Your task to perform on an android device: turn on javascript in the chrome app Image 0: 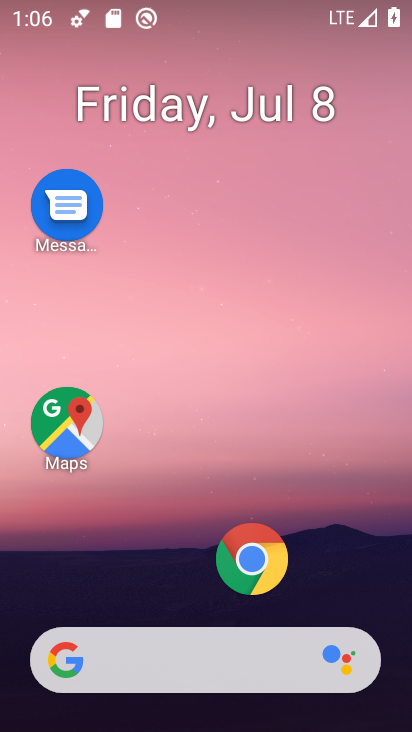
Step 0: drag from (219, 615) to (185, 21)
Your task to perform on an android device: turn on javascript in the chrome app Image 1: 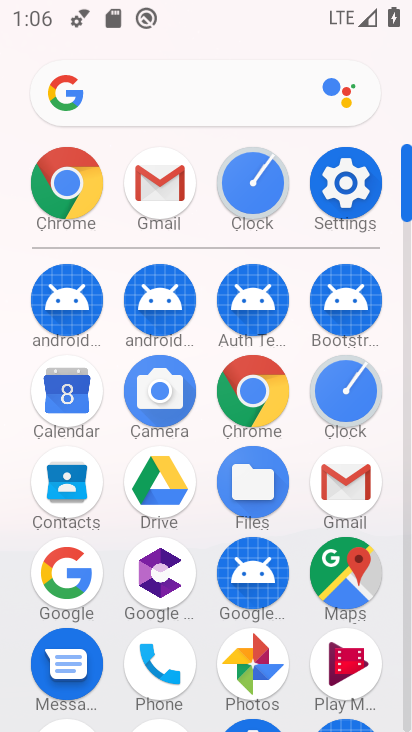
Step 1: click (87, 184)
Your task to perform on an android device: turn on javascript in the chrome app Image 2: 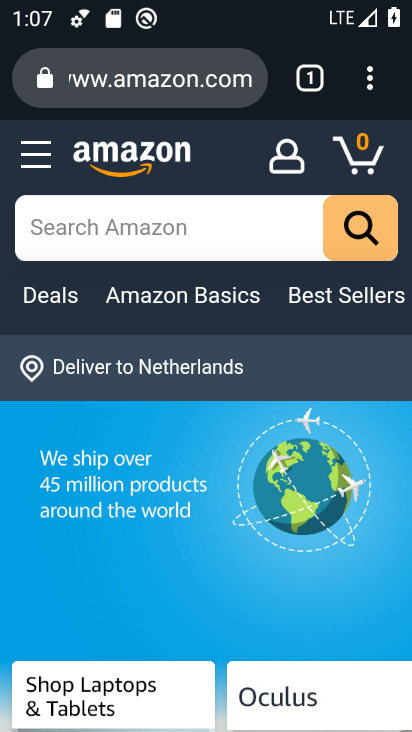
Step 2: drag from (359, 79) to (110, 625)
Your task to perform on an android device: turn on javascript in the chrome app Image 3: 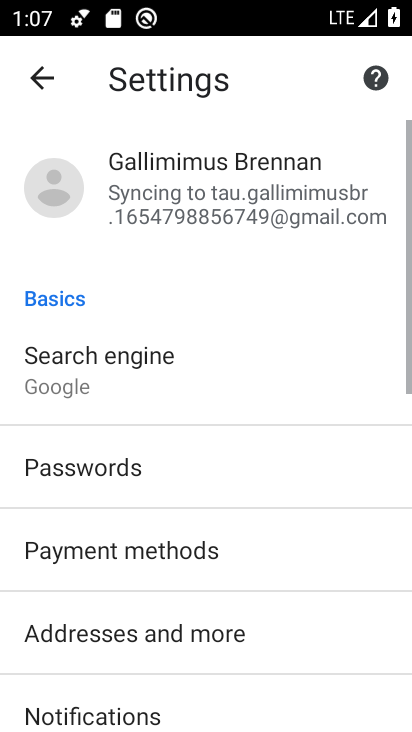
Step 3: drag from (110, 625) to (110, 162)
Your task to perform on an android device: turn on javascript in the chrome app Image 4: 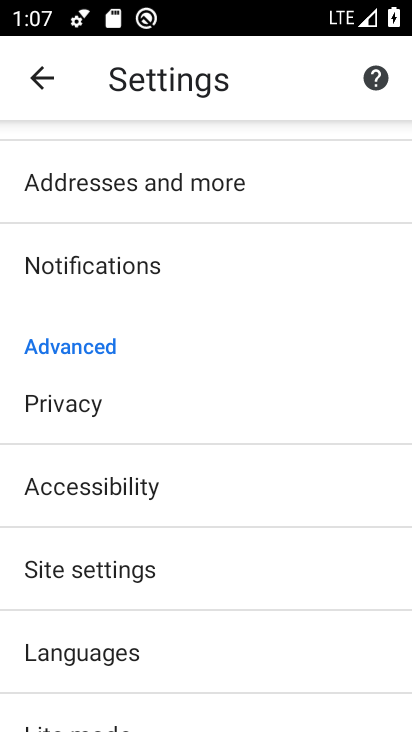
Step 4: click (137, 557)
Your task to perform on an android device: turn on javascript in the chrome app Image 5: 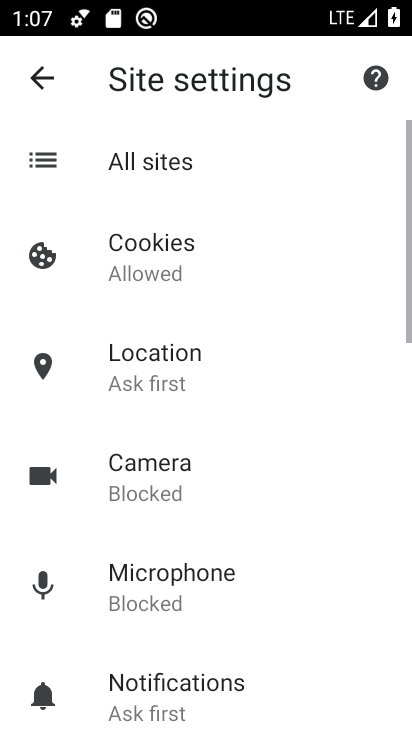
Step 5: drag from (137, 555) to (109, 66)
Your task to perform on an android device: turn on javascript in the chrome app Image 6: 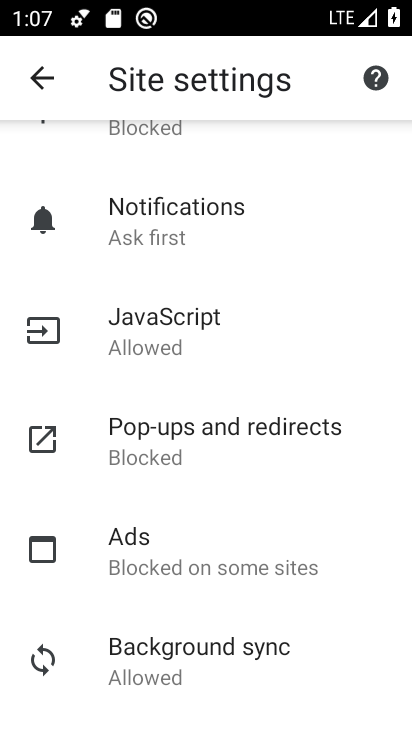
Step 6: click (198, 329)
Your task to perform on an android device: turn on javascript in the chrome app Image 7: 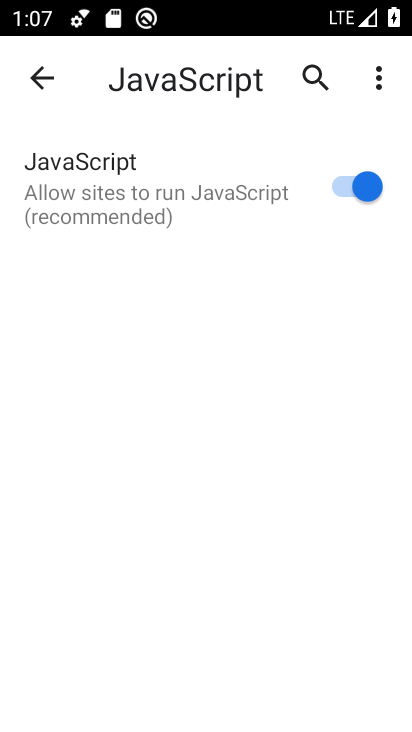
Step 7: task complete